Your task to perform on an android device: toggle javascript in the chrome app Image 0: 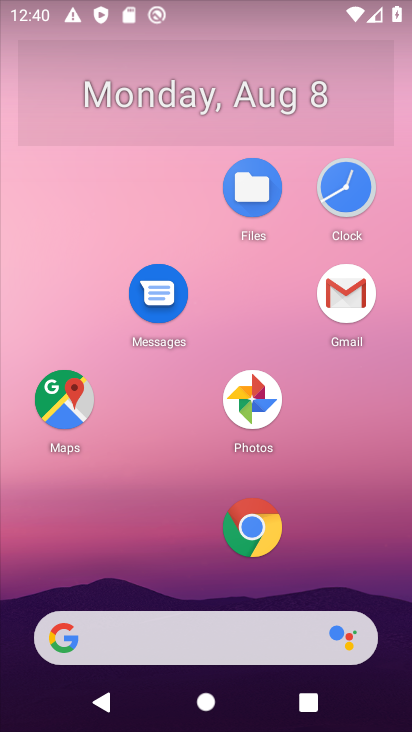
Step 0: click (265, 532)
Your task to perform on an android device: toggle javascript in the chrome app Image 1: 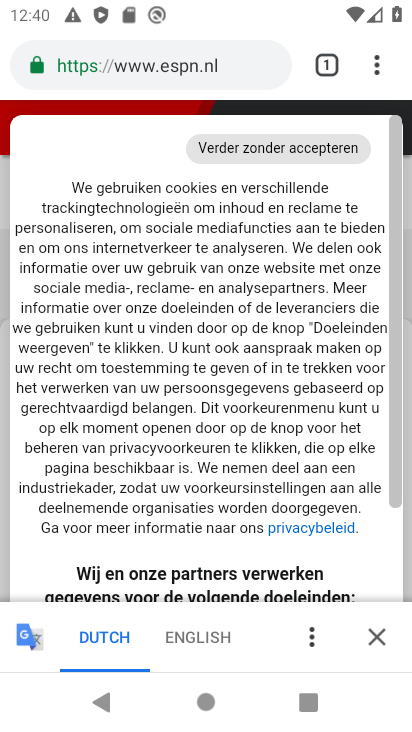
Step 1: task complete